Your task to perform on an android device: change text size in settings app Image 0: 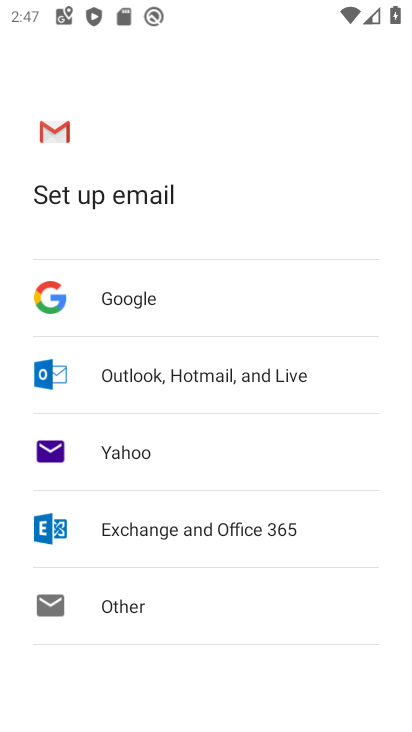
Step 0: press home button
Your task to perform on an android device: change text size in settings app Image 1: 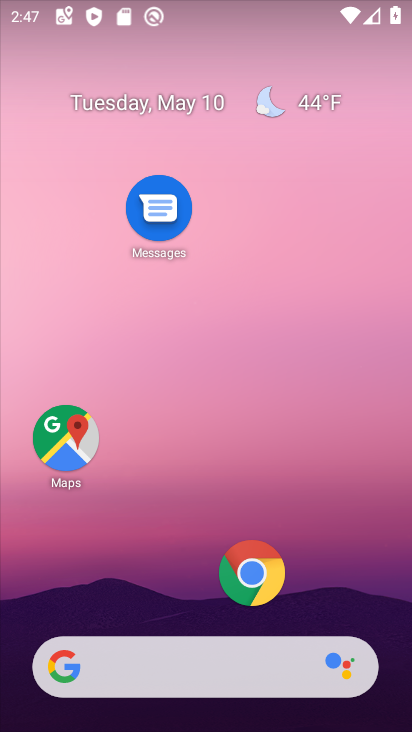
Step 1: drag from (185, 604) to (247, 214)
Your task to perform on an android device: change text size in settings app Image 2: 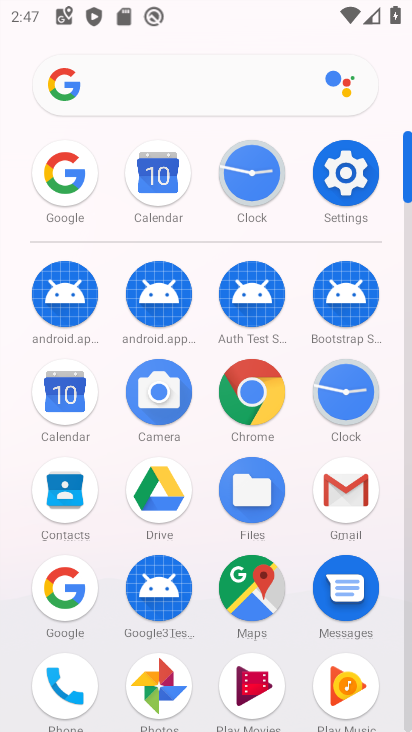
Step 2: click (352, 204)
Your task to perform on an android device: change text size in settings app Image 3: 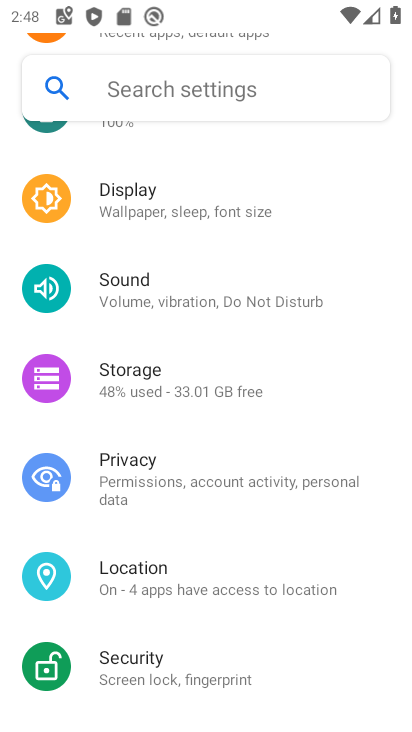
Step 3: drag from (192, 286) to (212, 549)
Your task to perform on an android device: change text size in settings app Image 4: 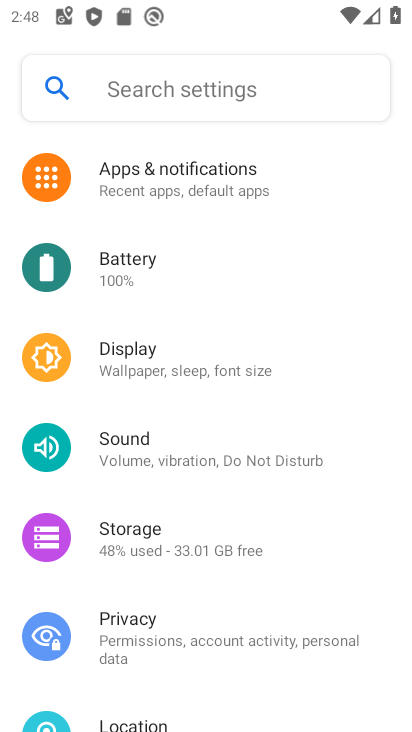
Step 4: drag from (192, 285) to (192, 526)
Your task to perform on an android device: change text size in settings app Image 5: 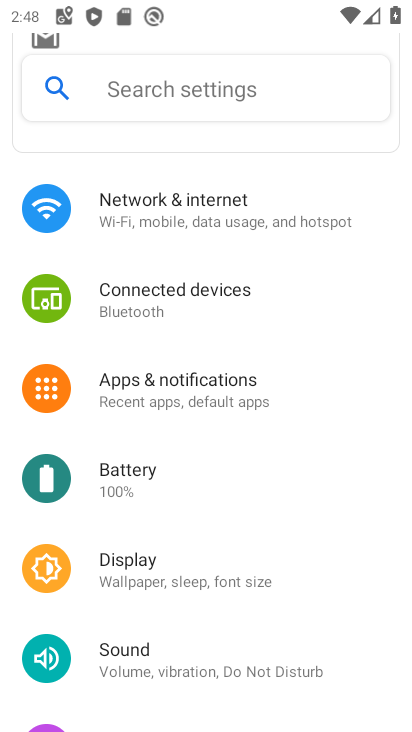
Step 5: drag from (190, 608) to (202, 406)
Your task to perform on an android device: change text size in settings app Image 6: 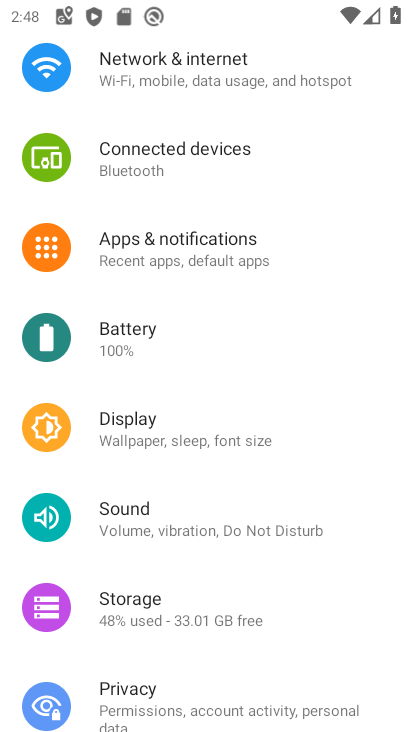
Step 6: click (148, 410)
Your task to perform on an android device: change text size in settings app Image 7: 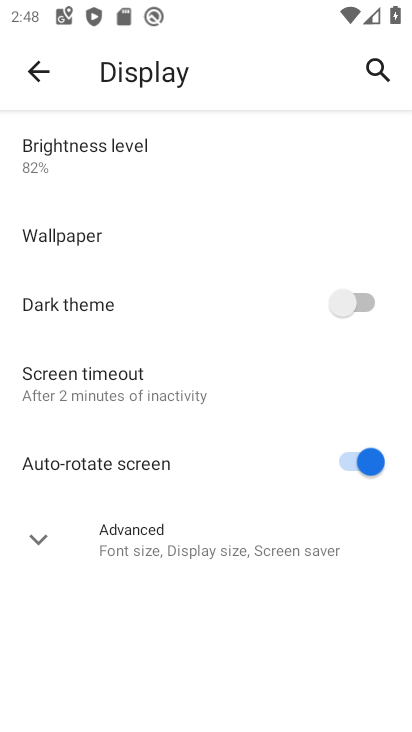
Step 7: click (106, 551)
Your task to perform on an android device: change text size in settings app Image 8: 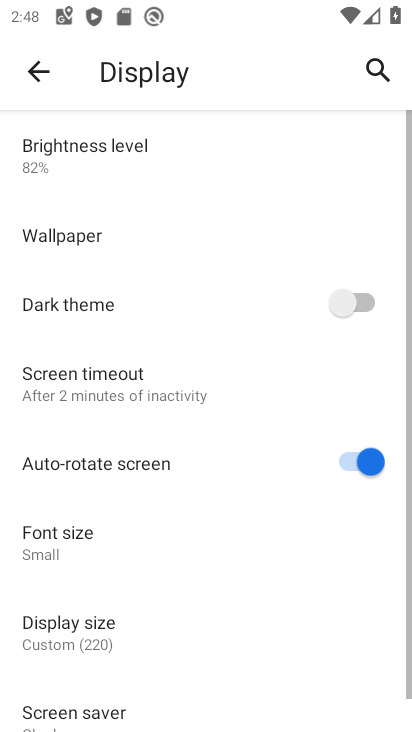
Step 8: click (110, 548)
Your task to perform on an android device: change text size in settings app Image 9: 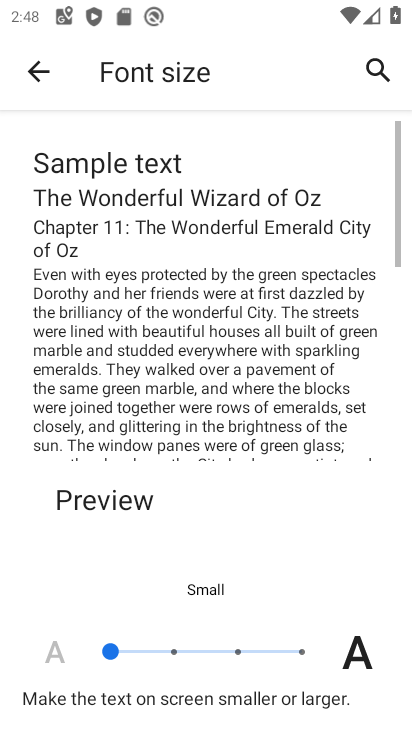
Step 9: click (178, 649)
Your task to perform on an android device: change text size in settings app Image 10: 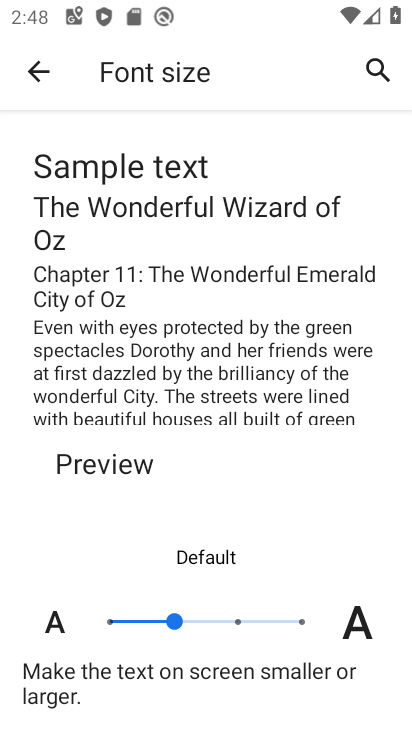
Step 10: task complete